Your task to perform on an android device: Go to wifi settings Image 0: 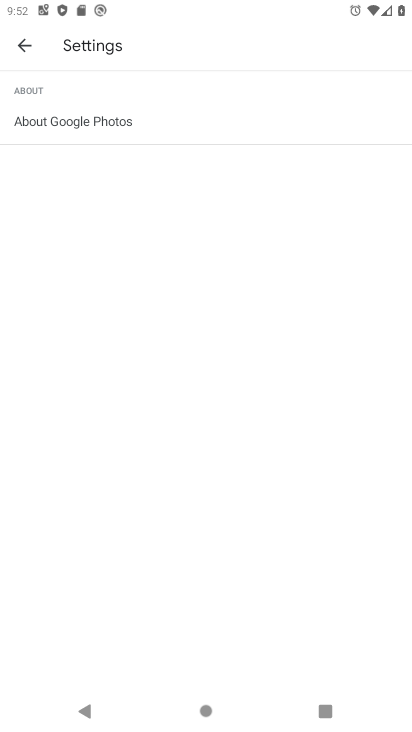
Step 0: press back button
Your task to perform on an android device: Go to wifi settings Image 1: 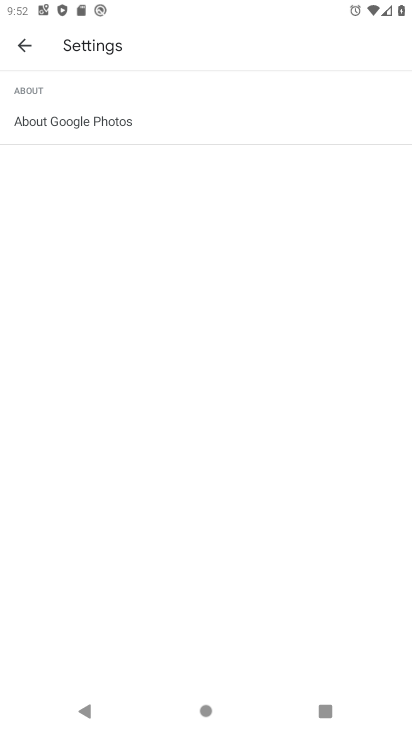
Step 1: click (26, 43)
Your task to perform on an android device: Go to wifi settings Image 2: 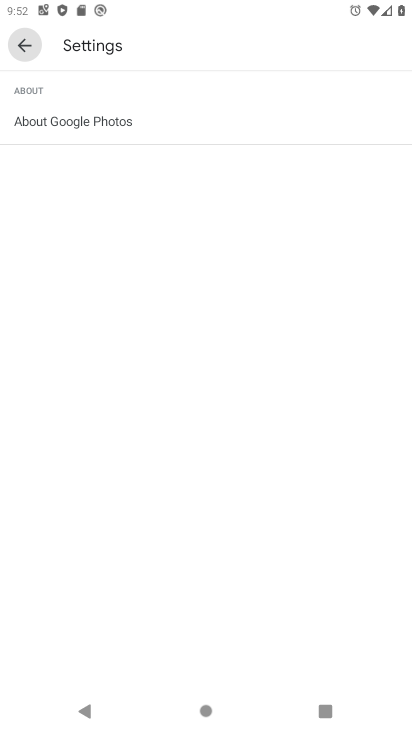
Step 2: click (26, 43)
Your task to perform on an android device: Go to wifi settings Image 3: 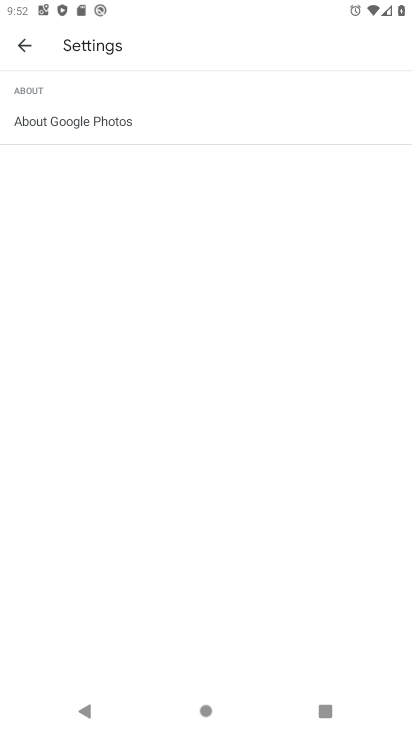
Step 3: click (26, 43)
Your task to perform on an android device: Go to wifi settings Image 4: 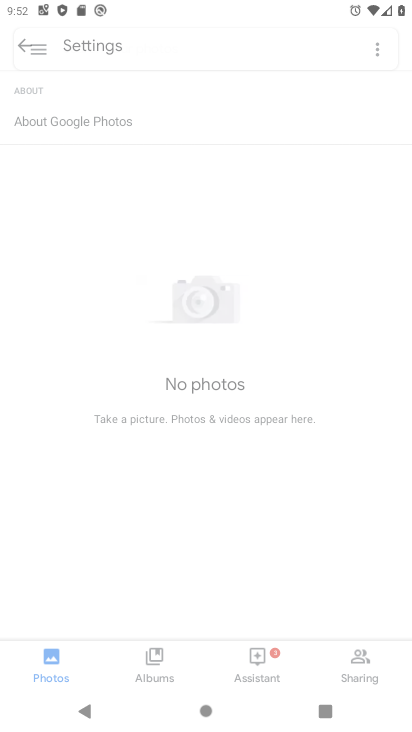
Step 4: click (27, 43)
Your task to perform on an android device: Go to wifi settings Image 5: 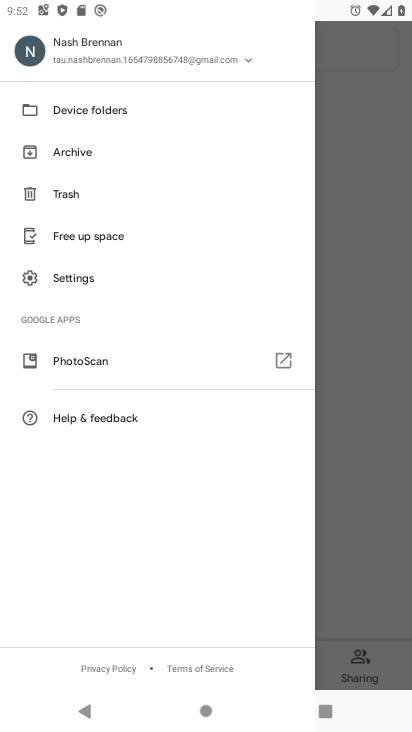
Step 5: press home button
Your task to perform on an android device: Go to wifi settings Image 6: 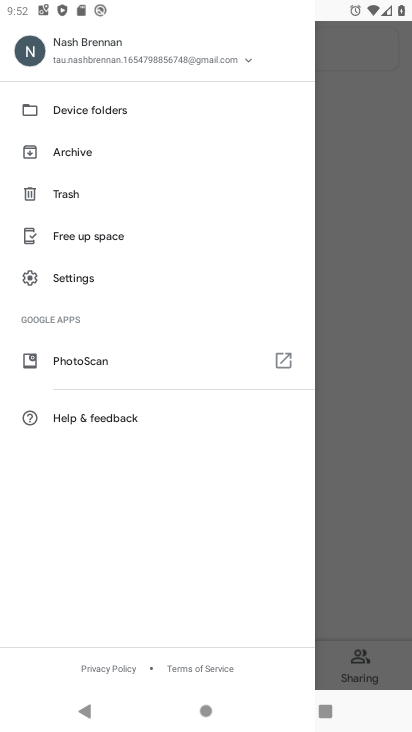
Step 6: press home button
Your task to perform on an android device: Go to wifi settings Image 7: 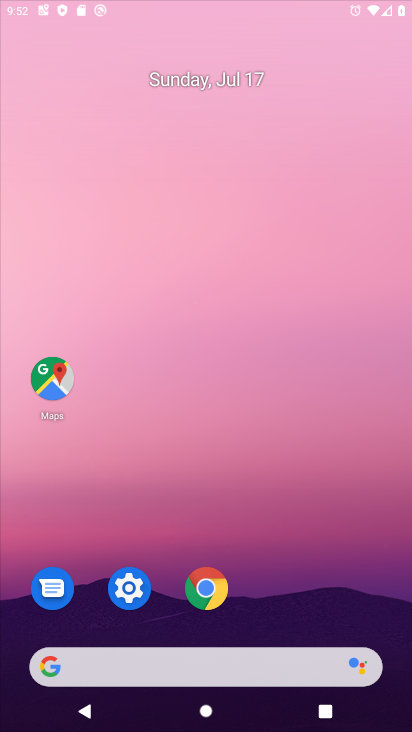
Step 7: press home button
Your task to perform on an android device: Go to wifi settings Image 8: 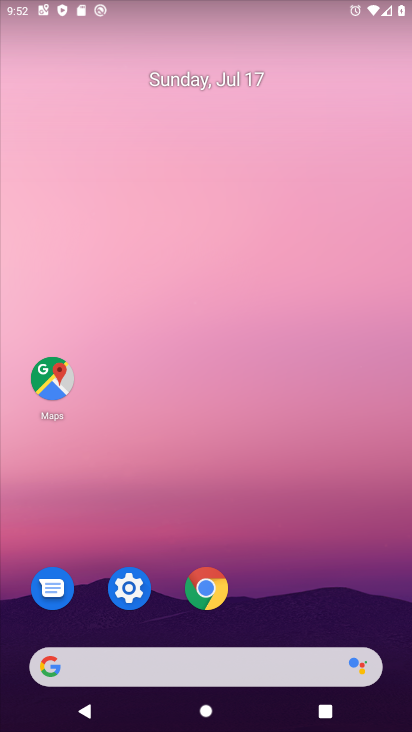
Step 8: drag from (141, 625) to (188, 119)
Your task to perform on an android device: Go to wifi settings Image 9: 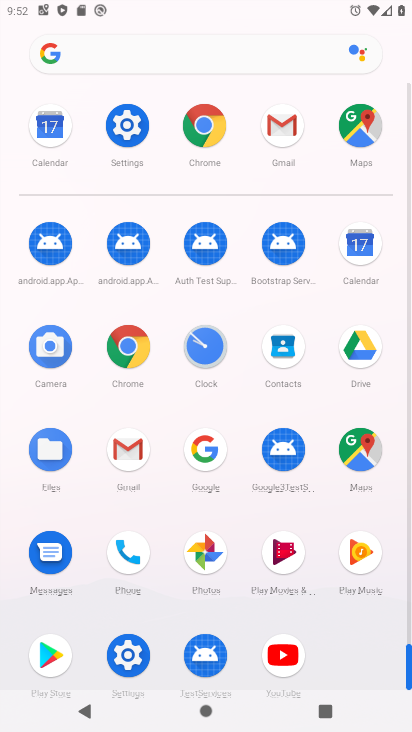
Step 9: click (127, 126)
Your task to perform on an android device: Go to wifi settings Image 10: 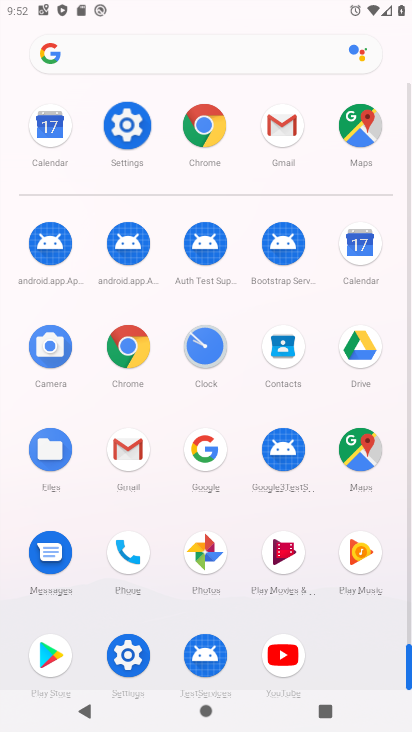
Step 10: click (126, 125)
Your task to perform on an android device: Go to wifi settings Image 11: 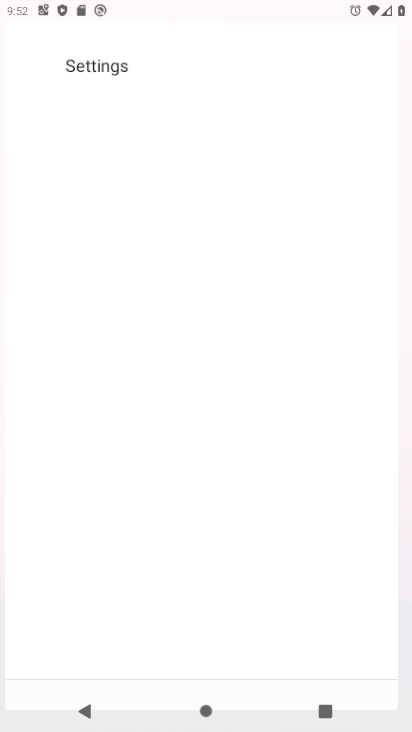
Step 11: click (126, 126)
Your task to perform on an android device: Go to wifi settings Image 12: 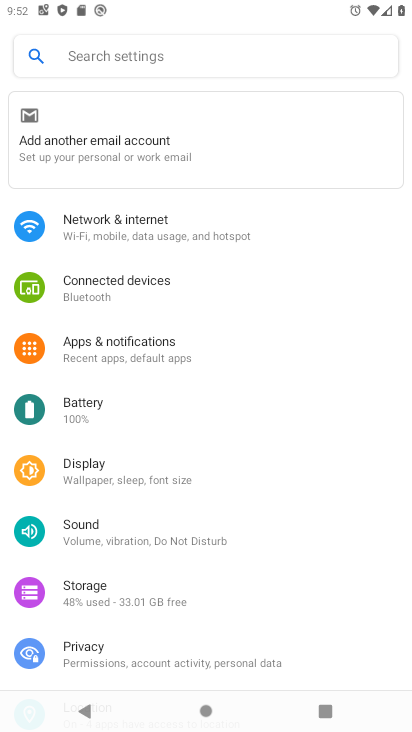
Step 12: drag from (104, 586) to (94, 275)
Your task to perform on an android device: Go to wifi settings Image 13: 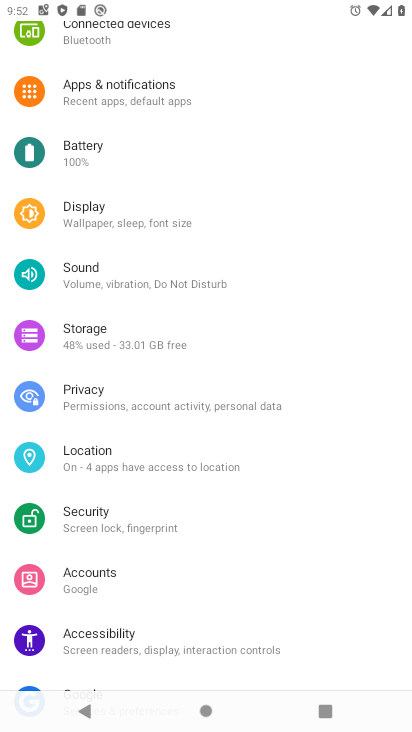
Step 13: drag from (95, 532) to (53, 336)
Your task to perform on an android device: Go to wifi settings Image 14: 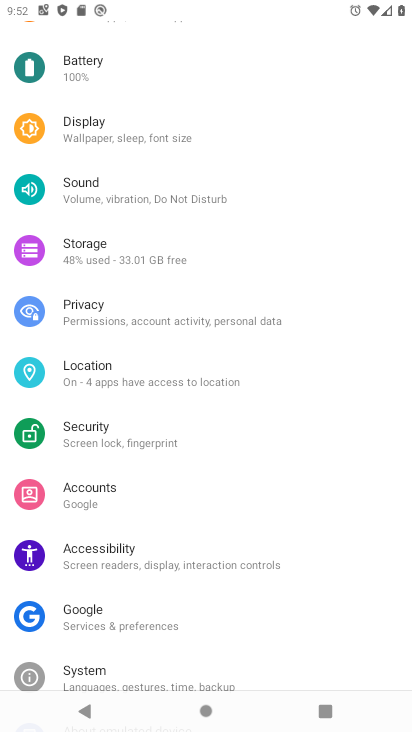
Step 14: drag from (153, 571) to (129, 162)
Your task to perform on an android device: Go to wifi settings Image 15: 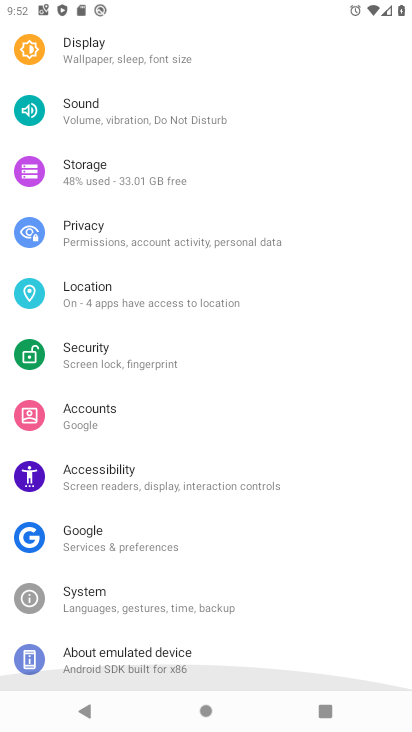
Step 15: drag from (211, 571) to (160, 162)
Your task to perform on an android device: Go to wifi settings Image 16: 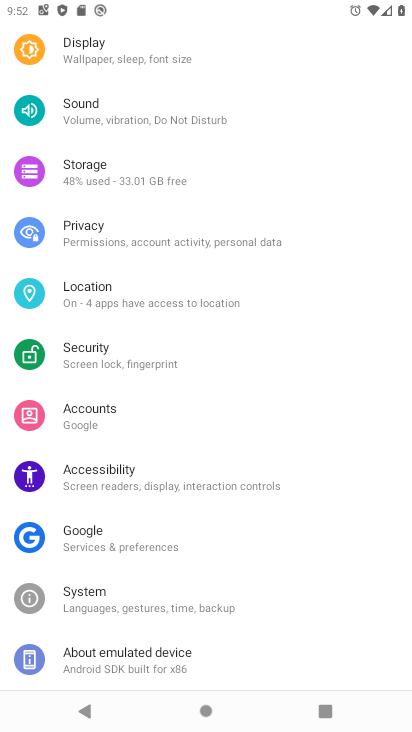
Step 16: drag from (155, 453) to (131, 17)
Your task to perform on an android device: Go to wifi settings Image 17: 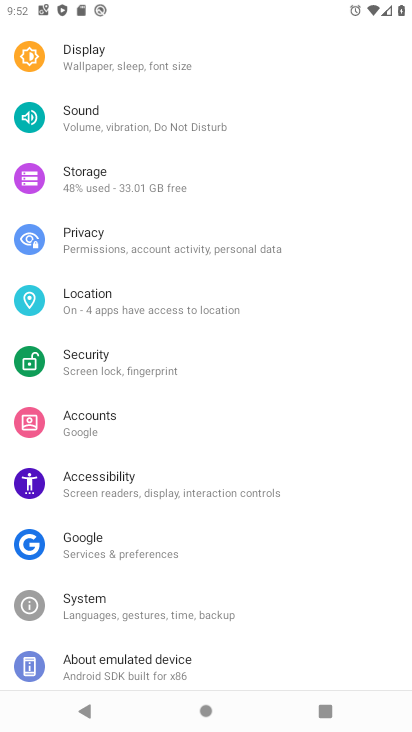
Step 17: drag from (104, 96) to (128, 460)
Your task to perform on an android device: Go to wifi settings Image 18: 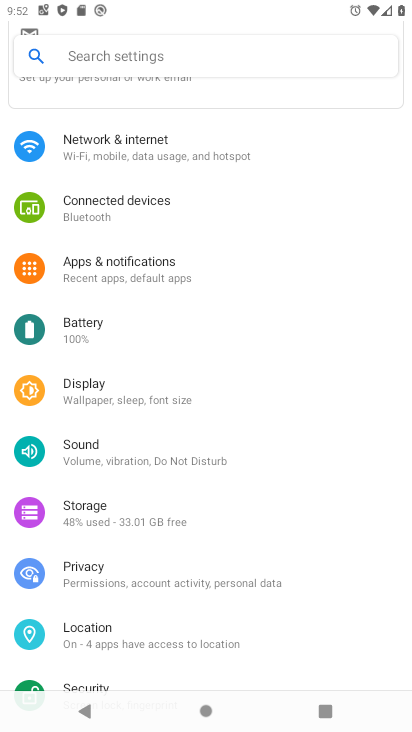
Step 18: drag from (93, 150) to (122, 469)
Your task to perform on an android device: Go to wifi settings Image 19: 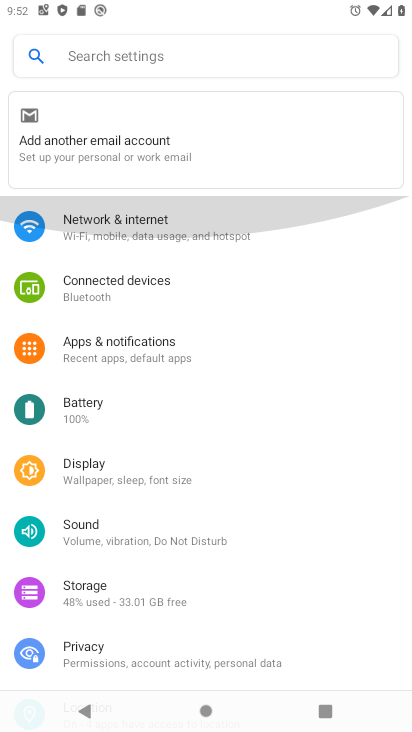
Step 19: drag from (95, 269) to (169, 731)
Your task to perform on an android device: Go to wifi settings Image 20: 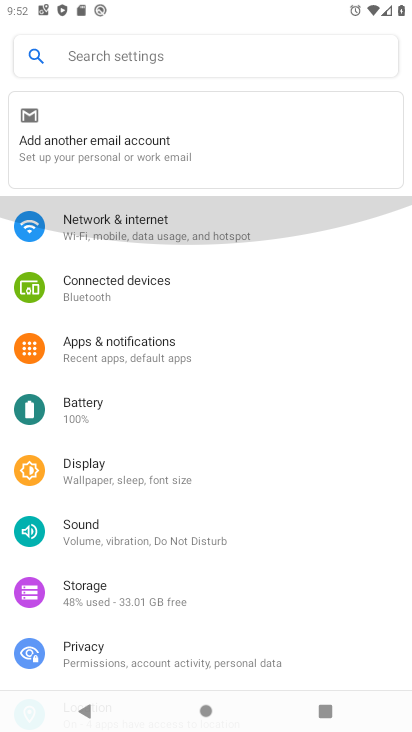
Step 20: drag from (125, 396) to (149, 703)
Your task to perform on an android device: Go to wifi settings Image 21: 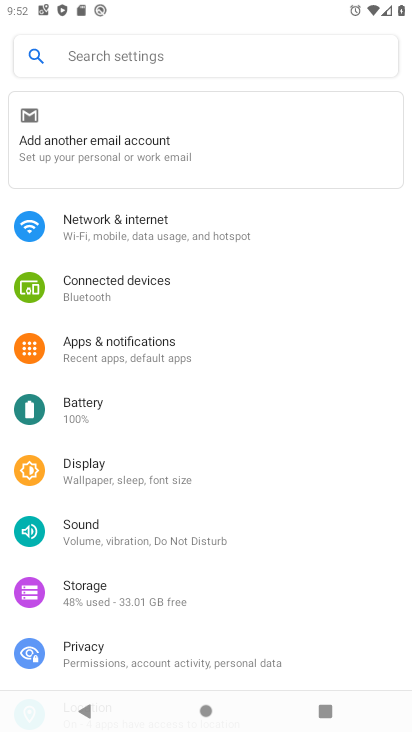
Step 21: click (134, 211)
Your task to perform on an android device: Go to wifi settings Image 22: 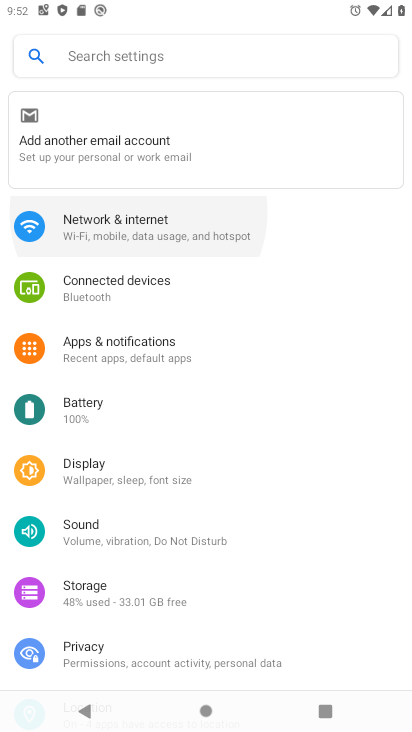
Step 22: click (140, 219)
Your task to perform on an android device: Go to wifi settings Image 23: 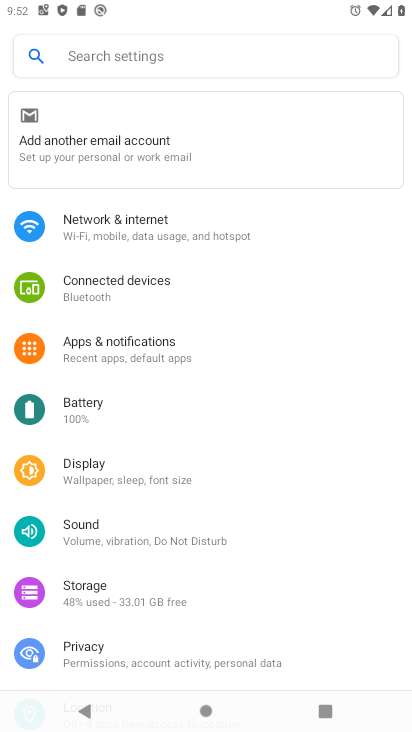
Step 23: click (140, 219)
Your task to perform on an android device: Go to wifi settings Image 24: 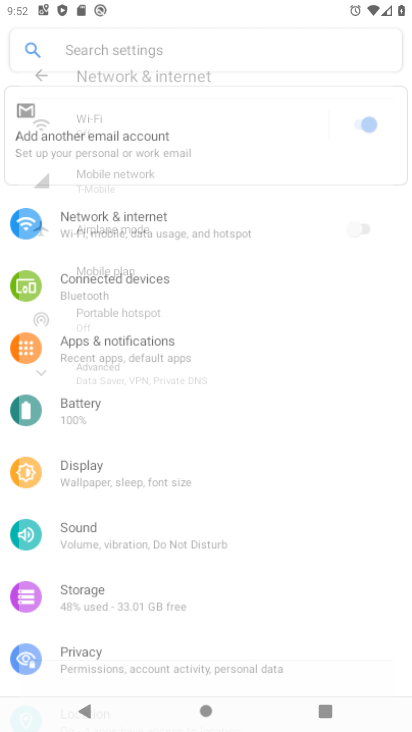
Step 24: click (140, 219)
Your task to perform on an android device: Go to wifi settings Image 25: 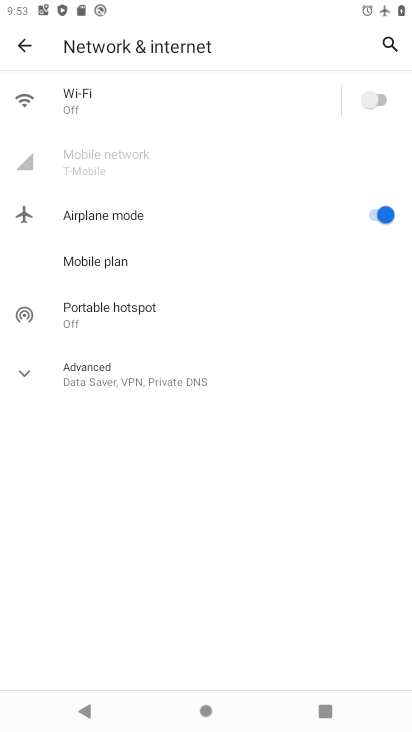
Step 25: click (366, 103)
Your task to perform on an android device: Go to wifi settings Image 26: 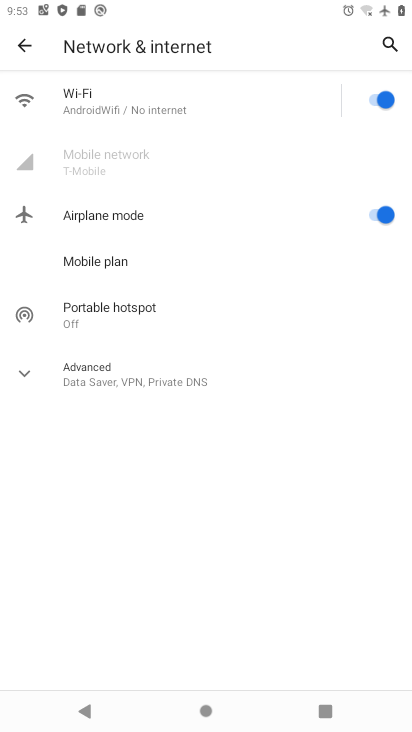
Step 26: click (395, 222)
Your task to perform on an android device: Go to wifi settings Image 27: 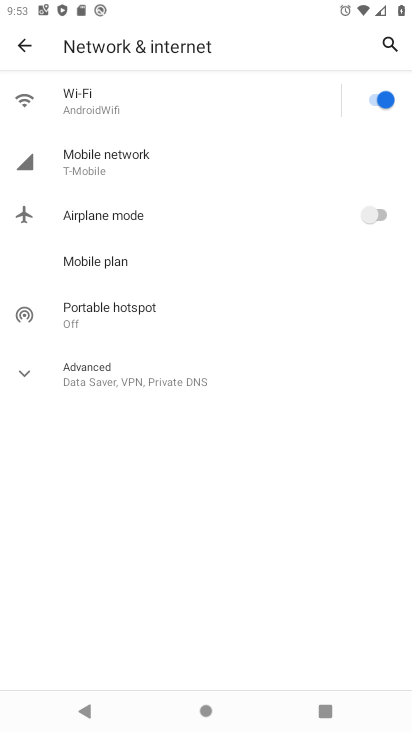
Step 27: task complete